Your task to perform on an android device: Do I have any events tomorrow? Image 0: 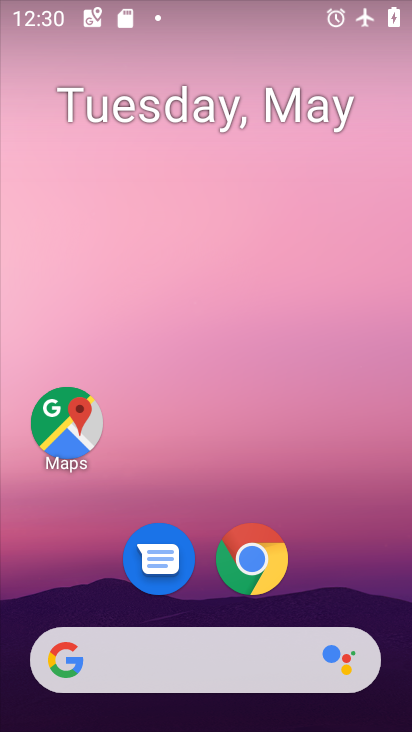
Step 0: drag from (346, 588) to (280, 165)
Your task to perform on an android device: Do I have any events tomorrow? Image 1: 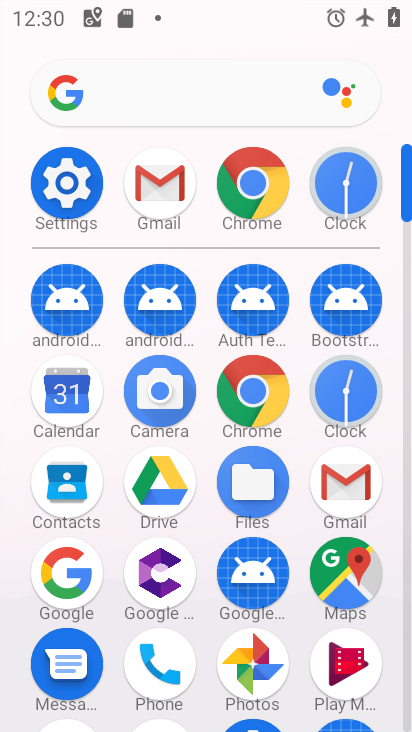
Step 1: click (62, 395)
Your task to perform on an android device: Do I have any events tomorrow? Image 2: 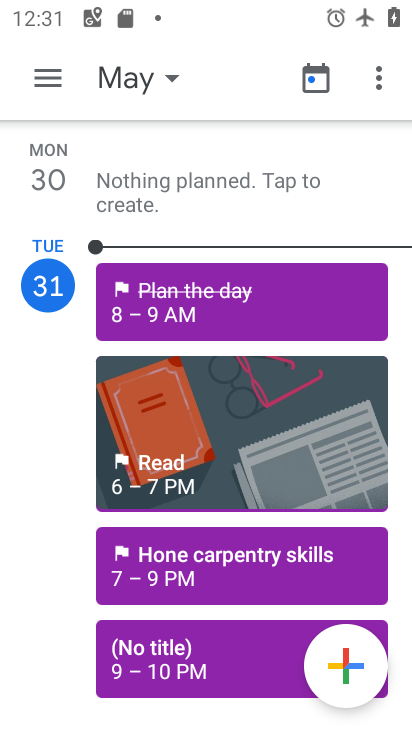
Step 2: click (121, 86)
Your task to perform on an android device: Do I have any events tomorrow? Image 3: 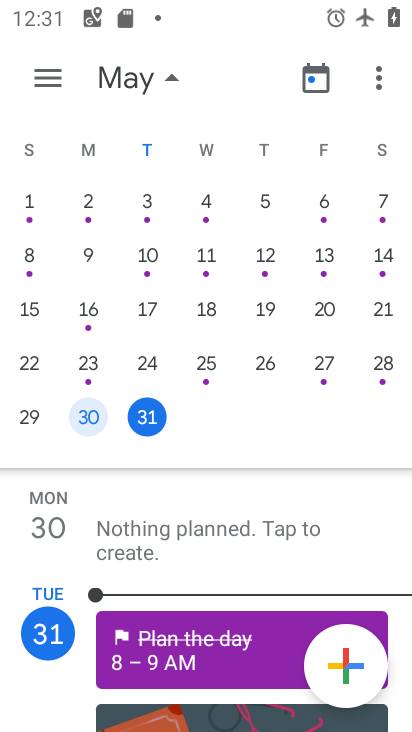
Step 3: drag from (350, 336) to (46, 315)
Your task to perform on an android device: Do I have any events tomorrow? Image 4: 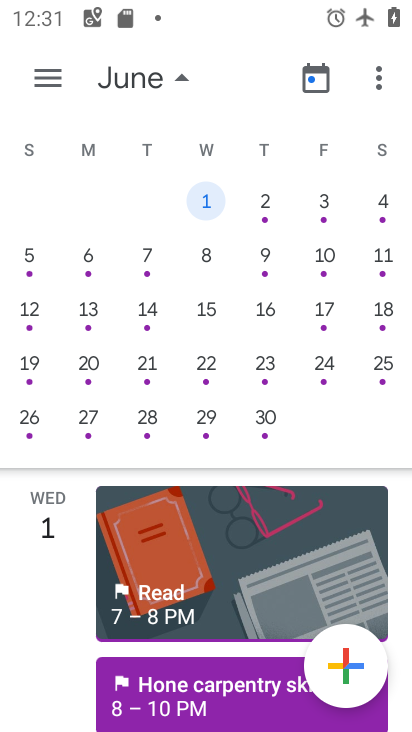
Step 4: click (199, 202)
Your task to perform on an android device: Do I have any events tomorrow? Image 5: 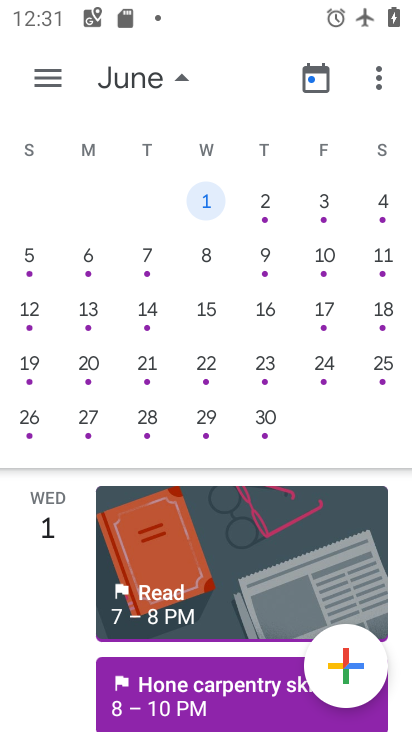
Step 5: click (167, 77)
Your task to perform on an android device: Do I have any events tomorrow? Image 6: 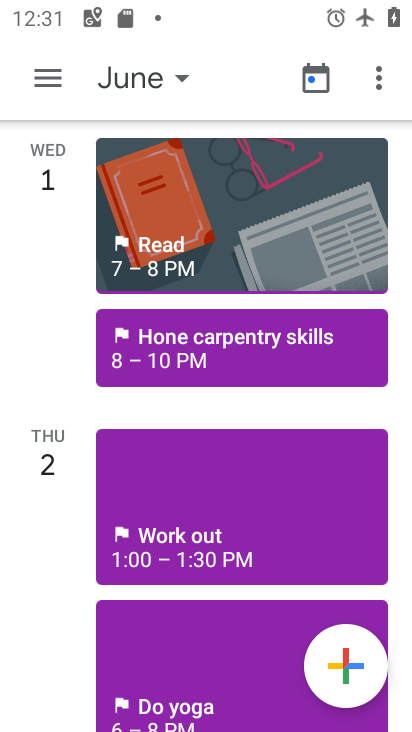
Step 6: task complete